Your task to perform on an android device: search for starred emails in the gmail app Image 0: 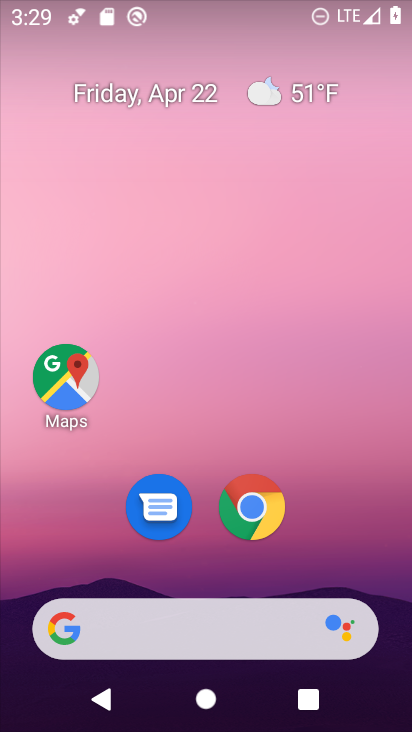
Step 0: drag from (187, 597) to (154, 119)
Your task to perform on an android device: search for starred emails in the gmail app Image 1: 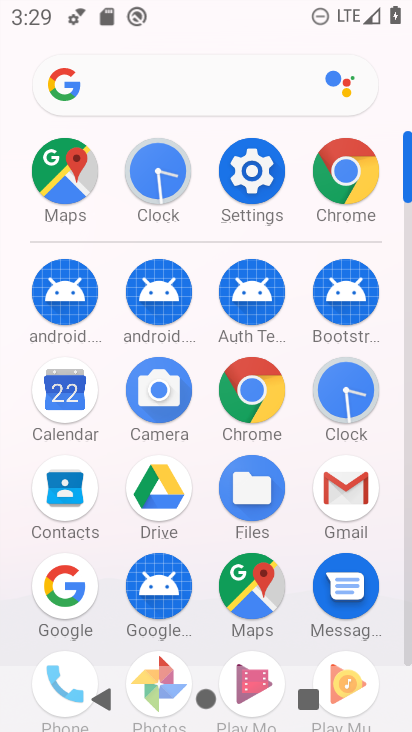
Step 1: click (344, 486)
Your task to perform on an android device: search for starred emails in the gmail app Image 2: 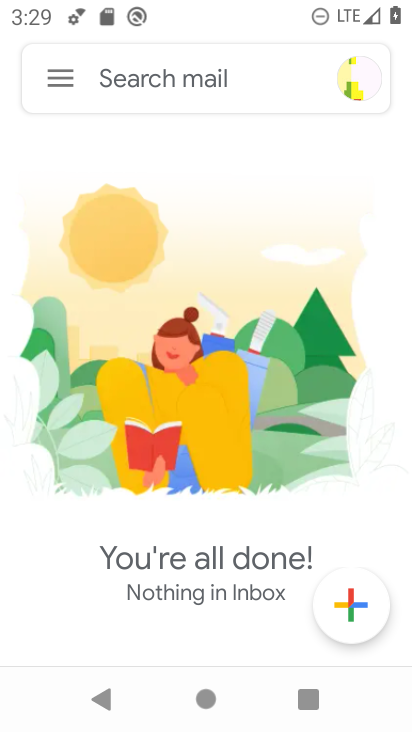
Step 2: click (56, 87)
Your task to perform on an android device: search for starred emails in the gmail app Image 3: 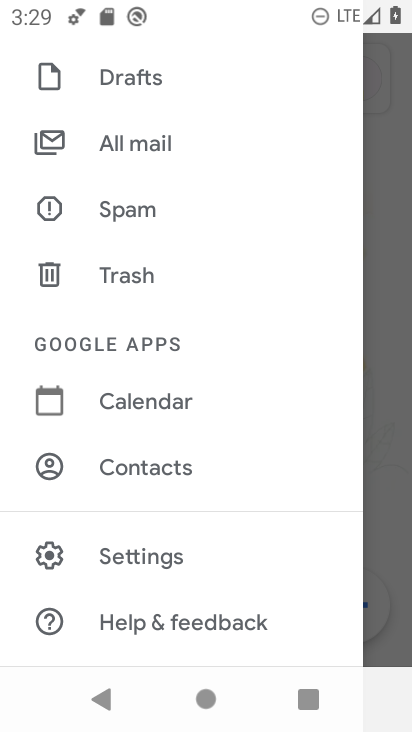
Step 3: drag from (174, 154) to (179, 504)
Your task to perform on an android device: search for starred emails in the gmail app Image 4: 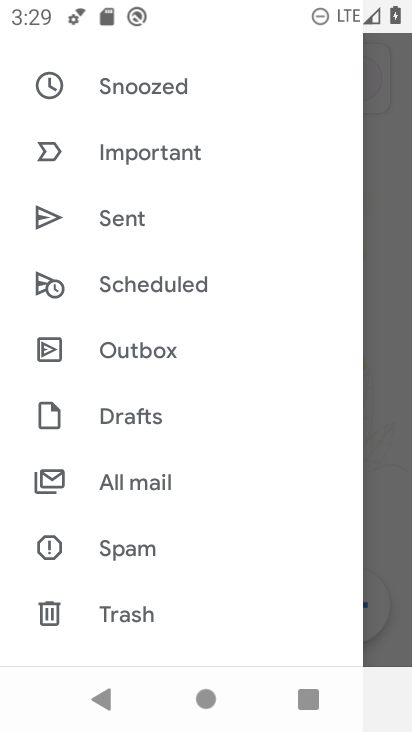
Step 4: drag from (154, 155) to (111, 455)
Your task to perform on an android device: search for starred emails in the gmail app Image 5: 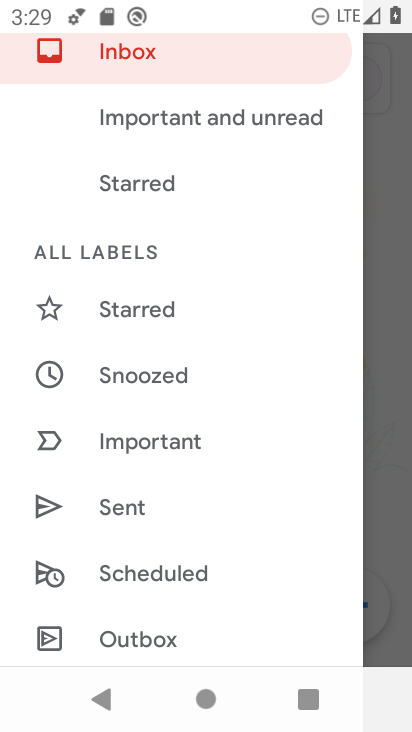
Step 5: click (135, 325)
Your task to perform on an android device: search for starred emails in the gmail app Image 6: 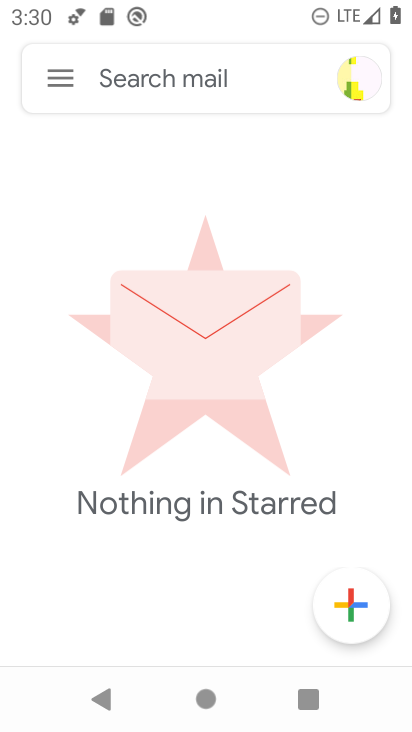
Step 6: task complete